Your task to perform on an android device: all mails in gmail Image 0: 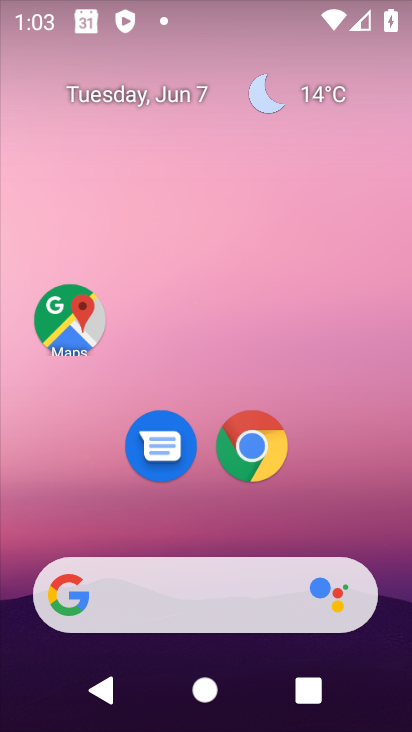
Step 0: drag from (398, 665) to (290, 48)
Your task to perform on an android device: all mails in gmail Image 1: 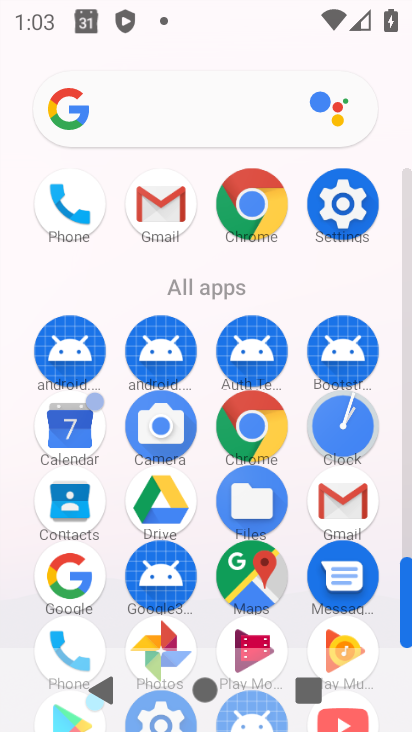
Step 1: drag from (25, 656) to (23, 263)
Your task to perform on an android device: all mails in gmail Image 2: 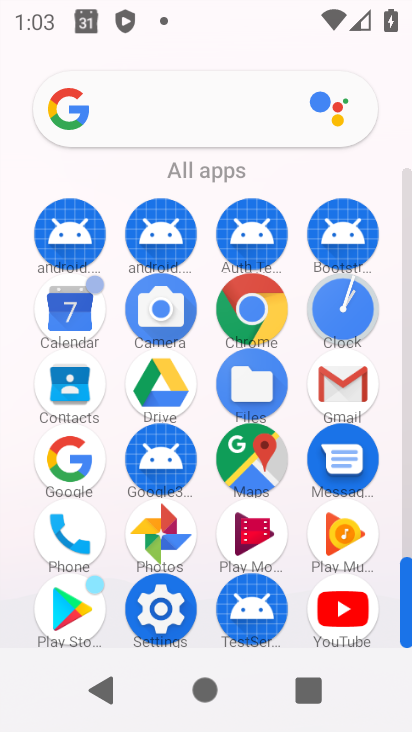
Step 2: click (342, 380)
Your task to perform on an android device: all mails in gmail Image 3: 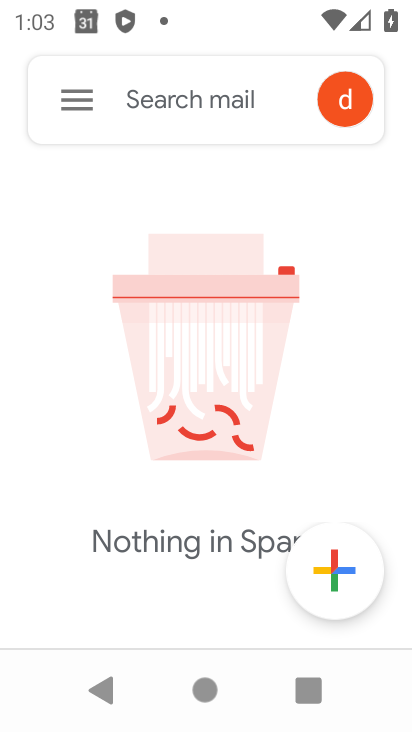
Step 3: click (76, 88)
Your task to perform on an android device: all mails in gmail Image 4: 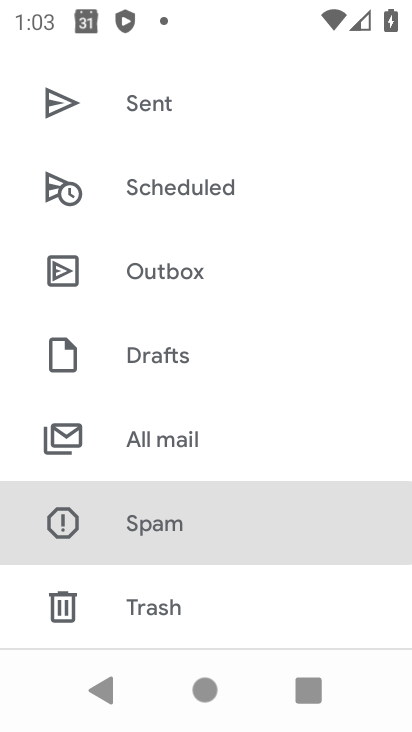
Step 4: click (209, 450)
Your task to perform on an android device: all mails in gmail Image 5: 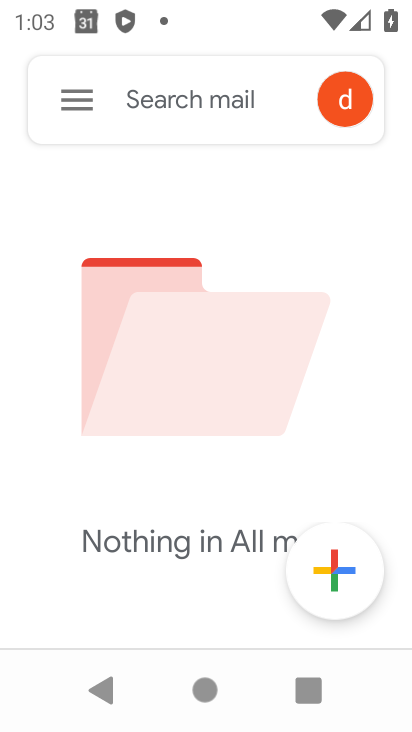
Step 5: task complete